Your task to perform on an android device: change your default location settings in chrome Image 0: 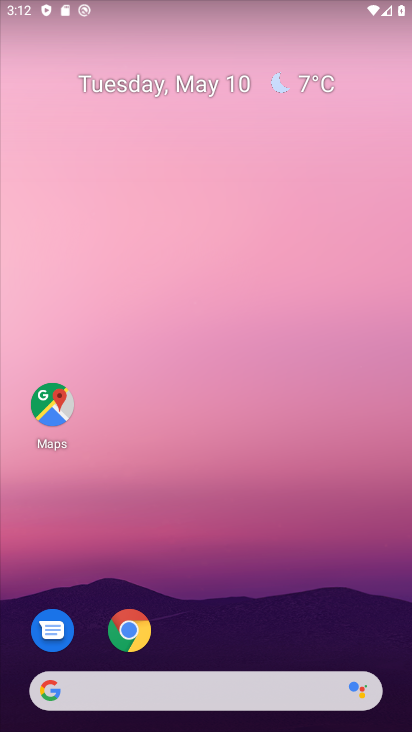
Step 0: click (234, 180)
Your task to perform on an android device: change your default location settings in chrome Image 1: 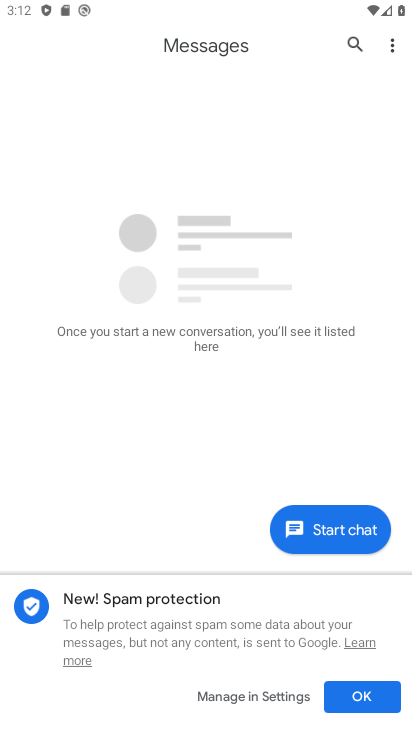
Step 1: press home button
Your task to perform on an android device: change your default location settings in chrome Image 2: 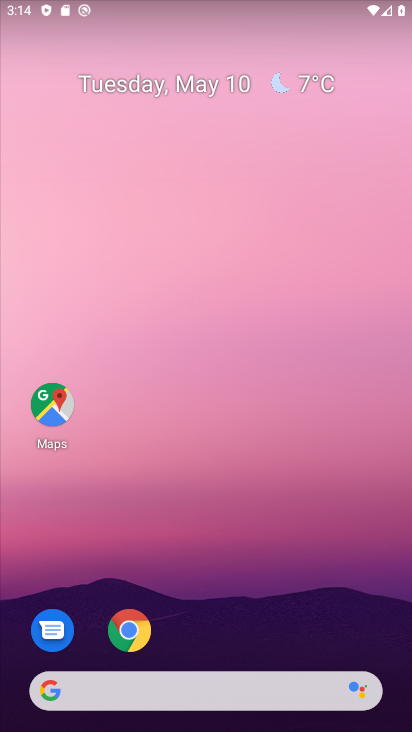
Step 2: click (137, 641)
Your task to perform on an android device: change your default location settings in chrome Image 3: 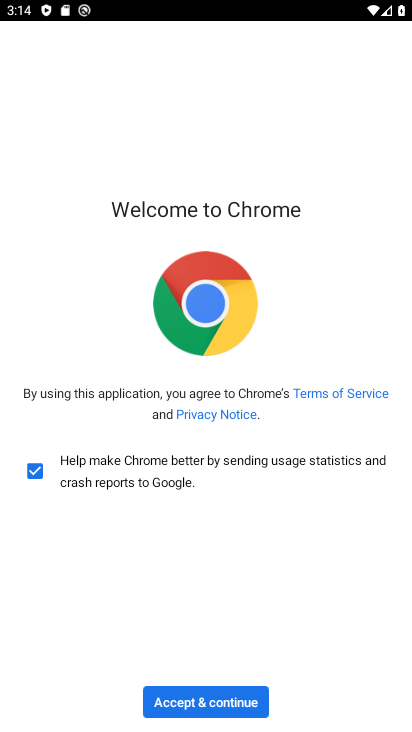
Step 3: click (195, 719)
Your task to perform on an android device: change your default location settings in chrome Image 4: 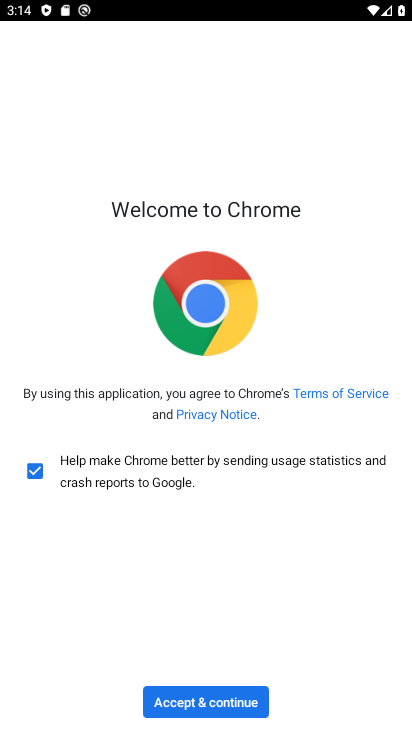
Step 4: click (196, 706)
Your task to perform on an android device: change your default location settings in chrome Image 5: 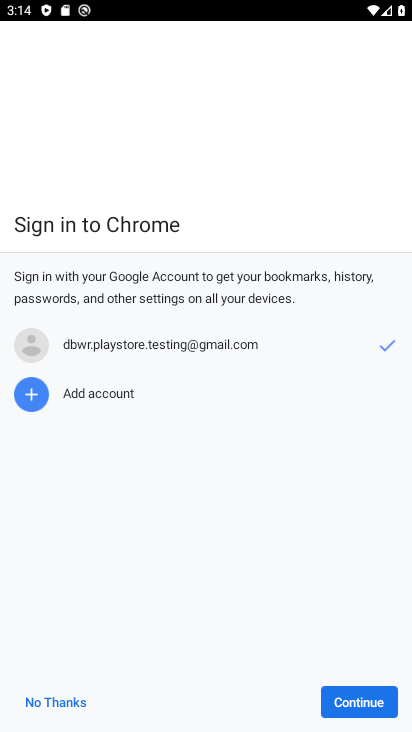
Step 5: click (340, 700)
Your task to perform on an android device: change your default location settings in chrome Image 6: 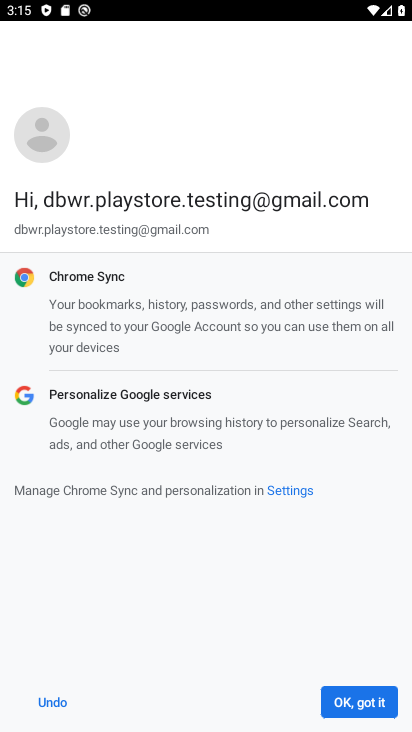
Step 6: click (340, 700)
Your task to perform on an android device: change your default location settings in chrome Image 7: 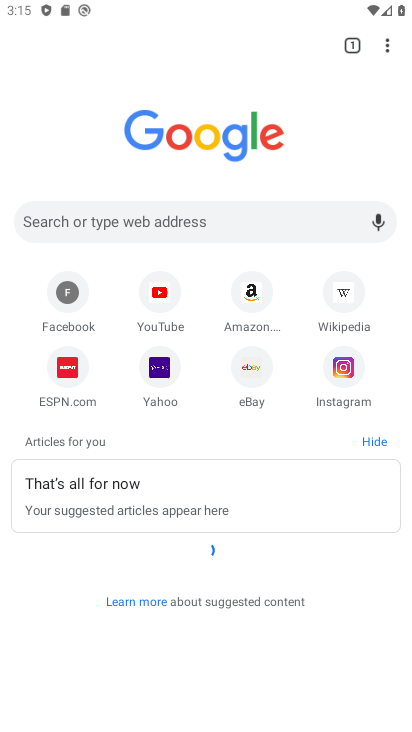
Step 7: click (380, 48)
Your task to perform on an android device: change your default location settings in chrome Image 8: 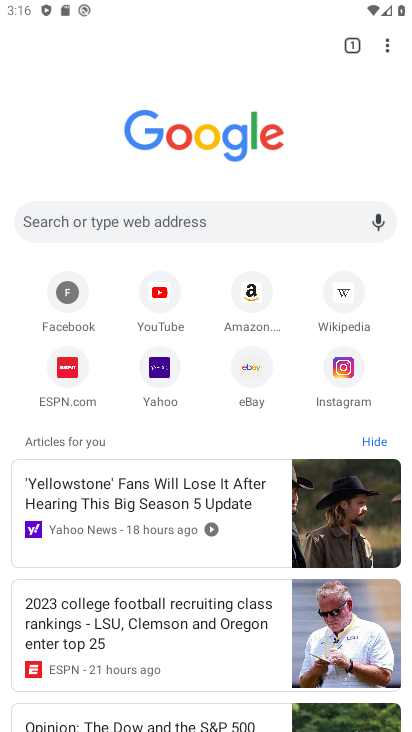
Step 8: click (386, 51)
Your task to perform on an android device: change your default location settings in chrome Image 9: 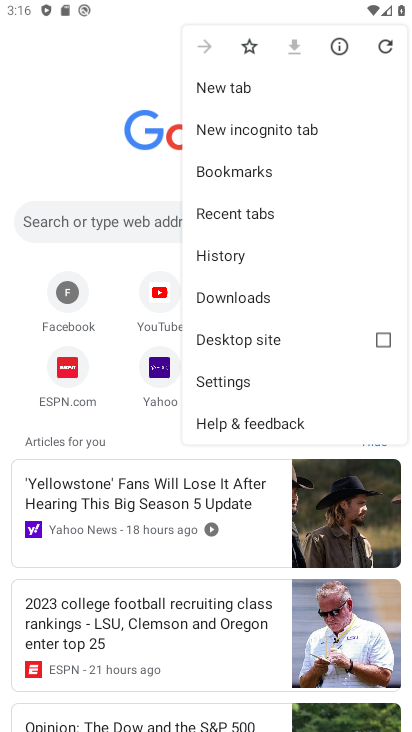
Step 9: click (238, 381)
Your task to perform on an android device: change your default location settings in chrome Image 10: 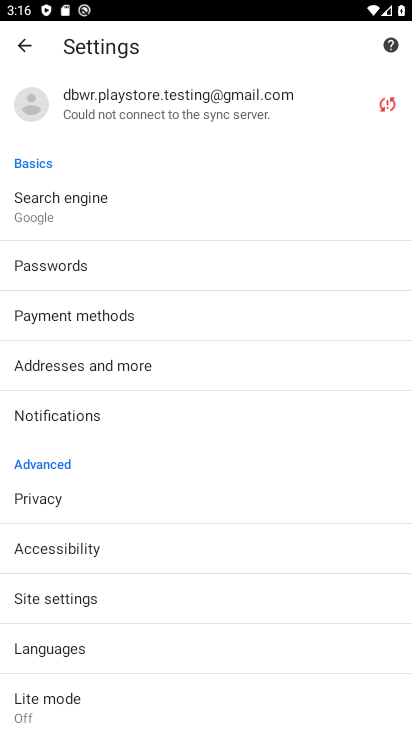
Step 10: click (91, 597)
Your task to perform on an android device: change your default location settings in chrome Image 11: 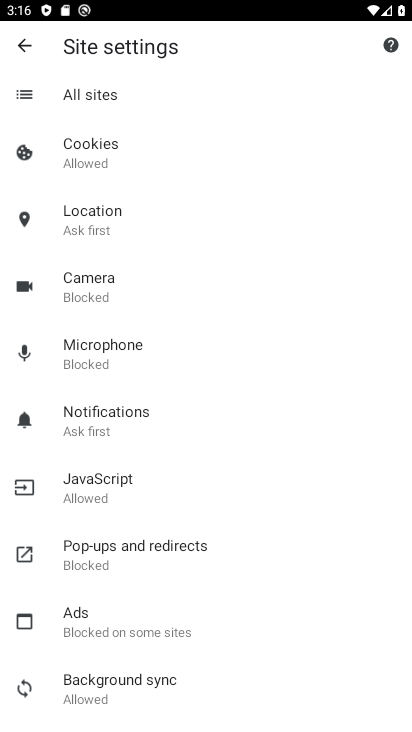
Step 11: click (111, 210)
Your task to perform on an android device: change your default location settings in chrome Image 12: 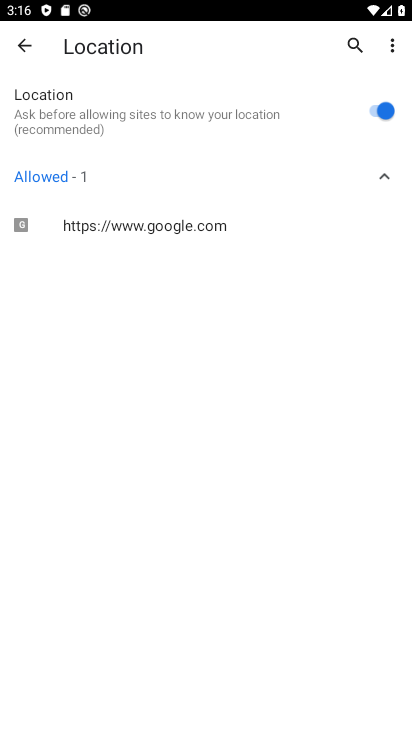
Step 12: click (387, 108)
Your task to perform on an android device: change your default location settings in chrome Image 13: 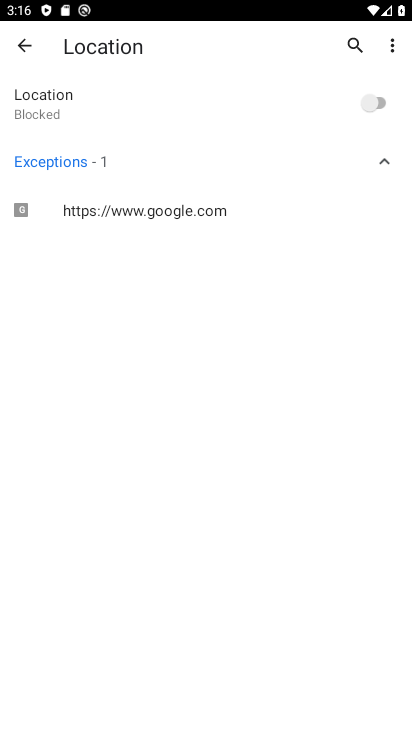
Step 13: task complete